Your task to perform on an android device: turn off location Image 0: 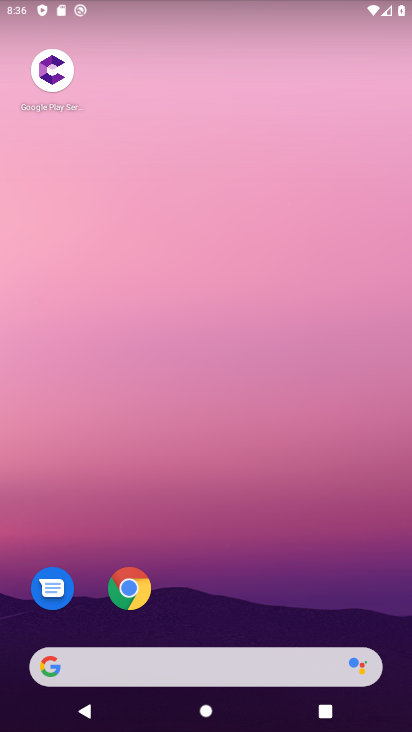
Step 0: drag from (25, 387) to (387, 415)
Your task to perform on an android device: turn off location Image 1: 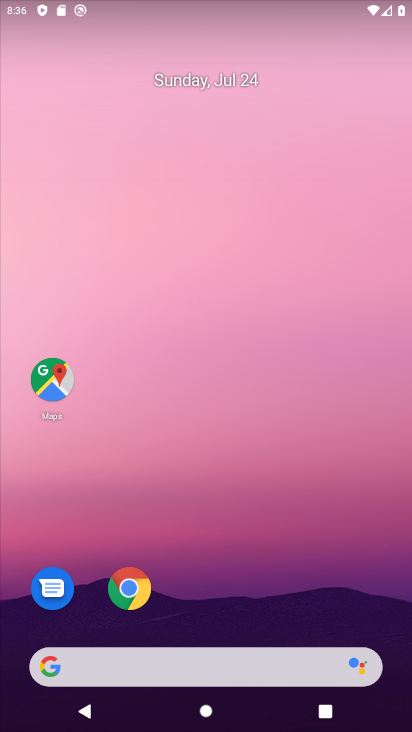
Step 1: click (53, 383)
Your task to perform on an android device: turn off location Image 2: 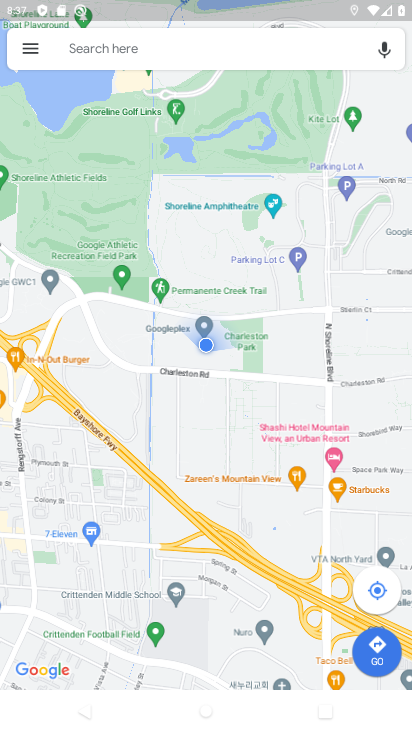
Step 2: task complete